Your task to perform on an android device: turn off javascript in the chrome app Image 0: 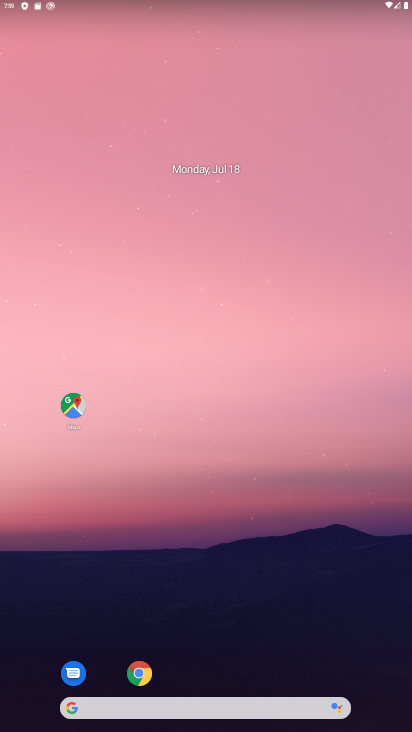
Step 0: click (136, 679)
Your task to perform on an android device: turn off javascript in the chrome app Image 1: 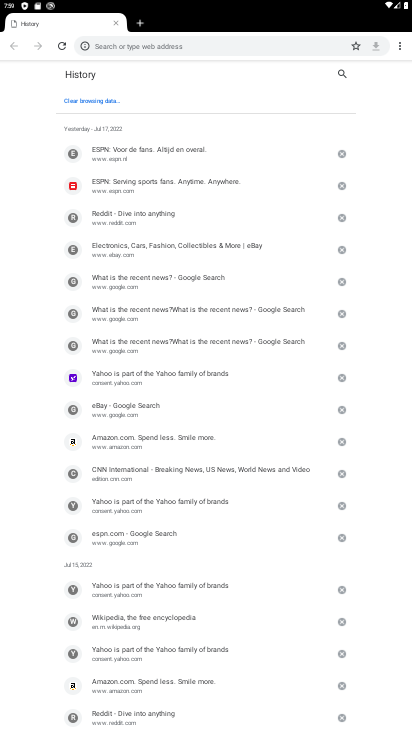
Step 1: click (401, 49)
Your task to perform on an android device: turn off javascript in the chrome app Image 2: 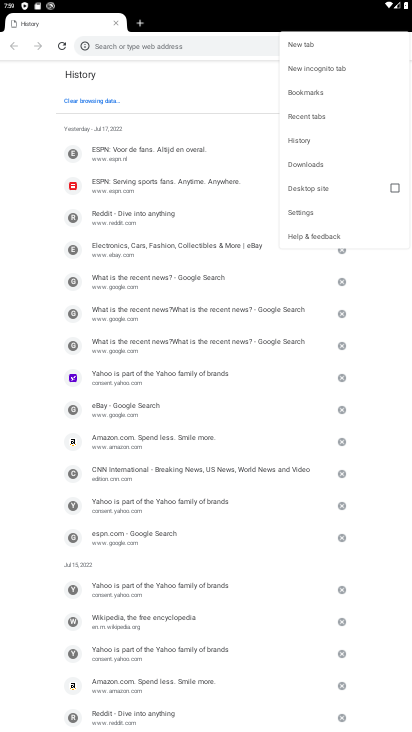
Step 2: click (312, 214)
Your task to perform on an android device: turn off javascript in the chrome app Image 3: 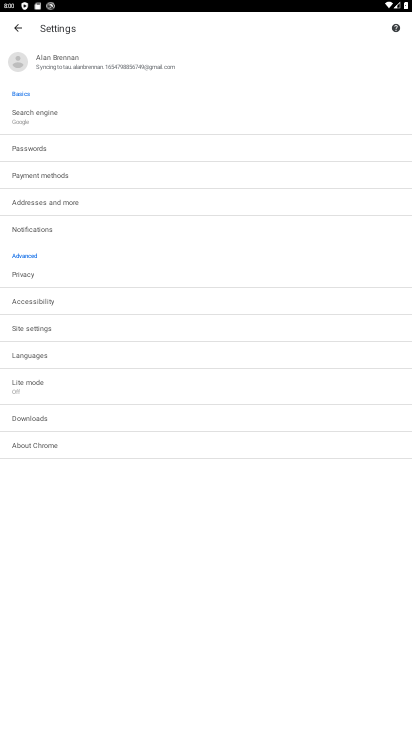
Step 3: click (26, 329)
Your task to perform on an android device: turn off javascript in the chrome app Image 4: 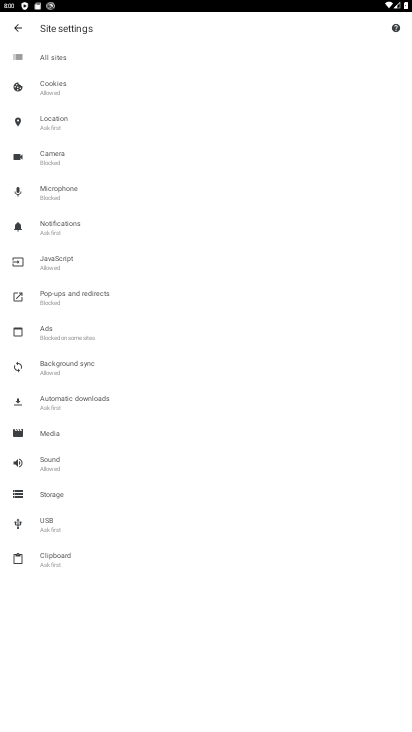
Step 4: click (59, 263)
Your task to perform on an android device: turn off javascript in the chrome app Image 5: 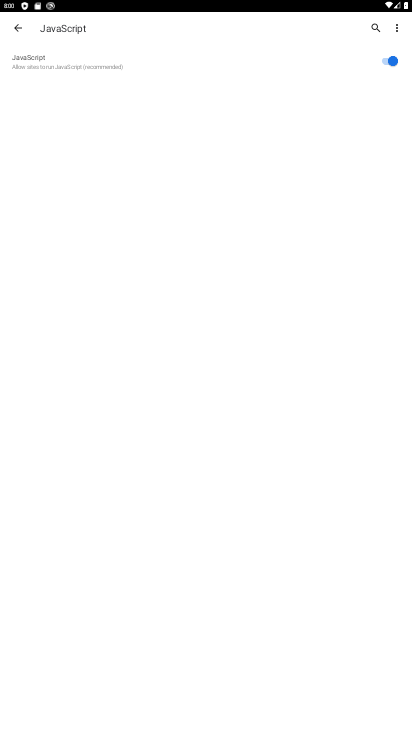
Step 5: click (393, 61)
Your task to perform on an android device: turn off javascript in the chrome app Image 6: 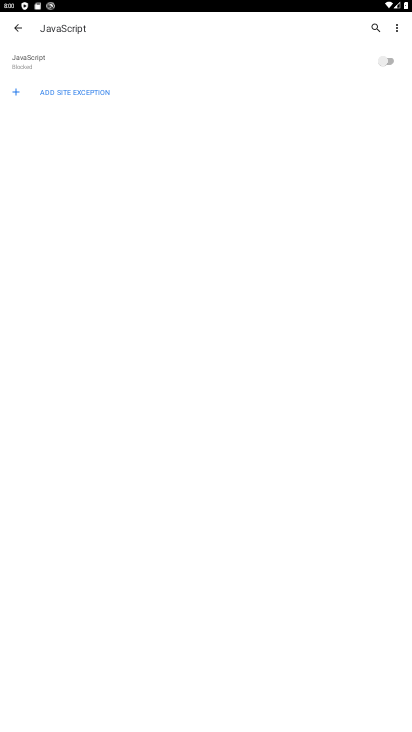
Step 6: task complete